Your task to perform on an android device: toggle sleep mode Image 0: 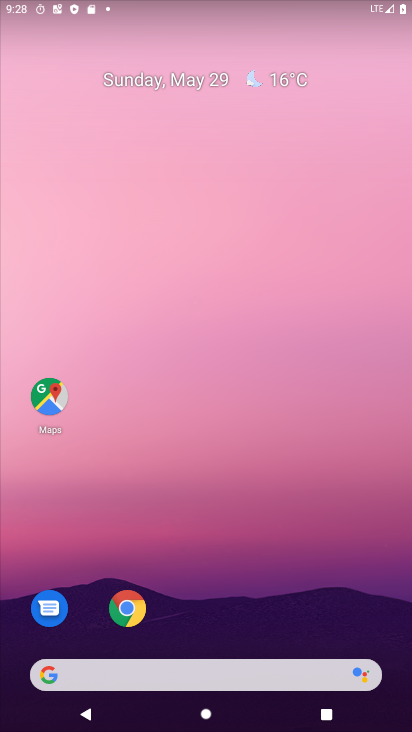
Step 0: drag from (185, 640) to (400, 541)
Your task to perform on an android device: toggle sleep mode Image 1: 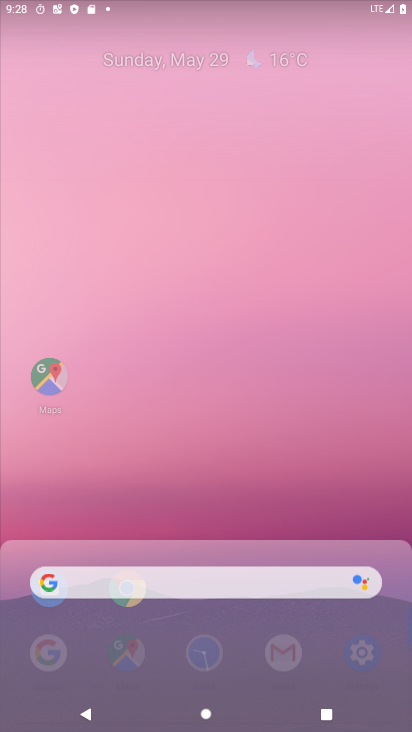
Step 1: task complete